Your task to perform on an android device: Go to network settings Image 0: 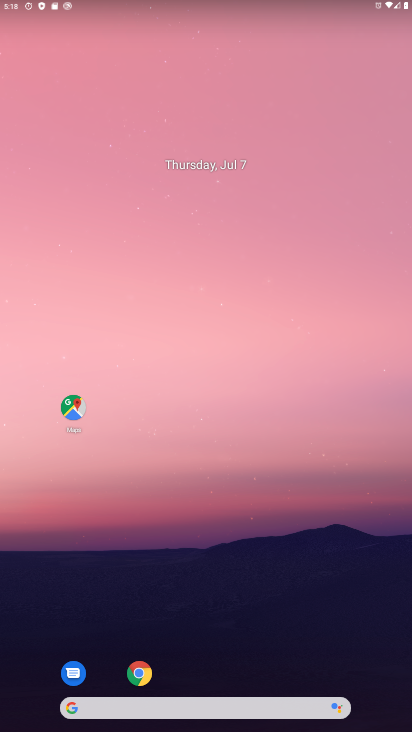
Step 0: drag from (277, 729) to (173, 42)
Your task to perform on an android device: Go to network settings Image 1: 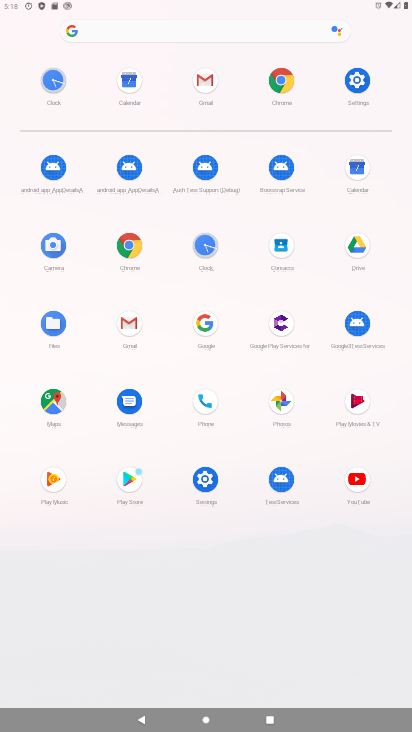
Step 1: click (357, 83)
Your task to perform on an android device: Go to network settings Image 2: 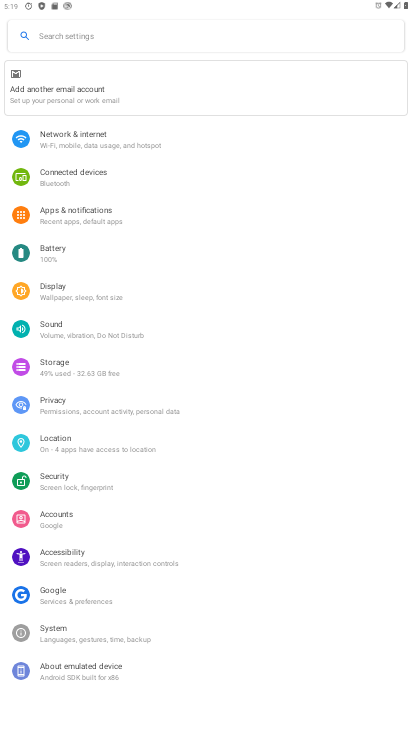
Step 2: click (129, 134)
Your task to perform on an android device: Go to network settings Image 3: 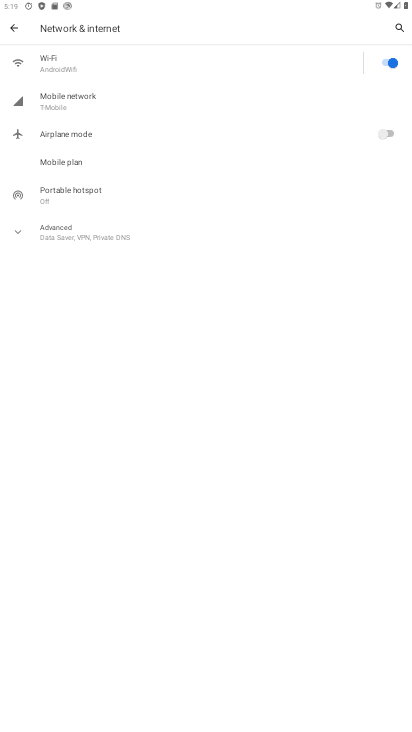
Step 3: task complete